Your task to perform on an android device: turn on bluetooth scan Image 0: 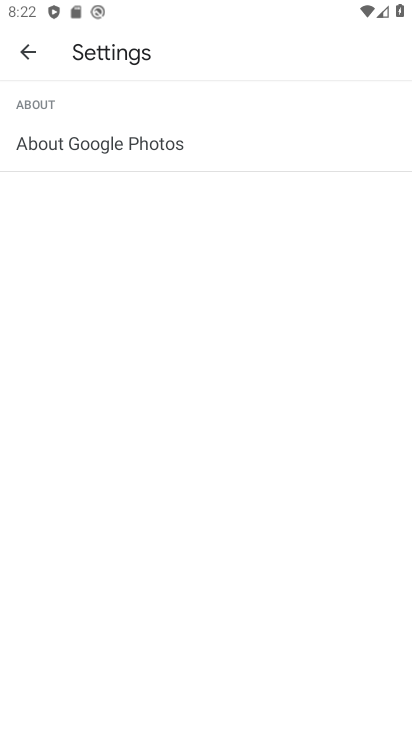
Step 0: press home button
Your task to perform on an android device: turn on bluetooth scan Image 1: 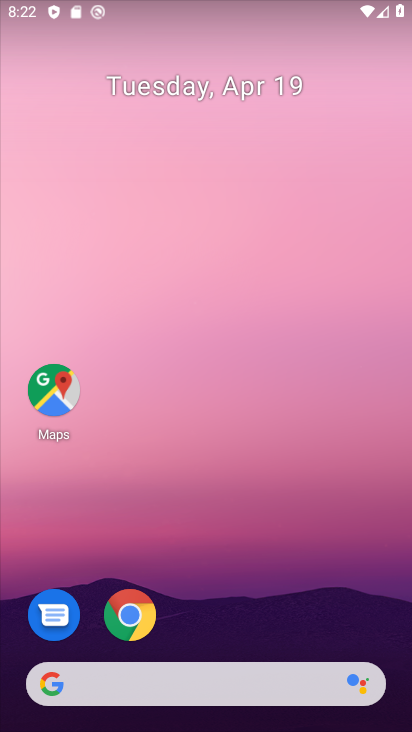
Step 1: drag from (186, 331) to (219, 7)
Your task to perform on an android device: turn on bluetooth scan Image 2: 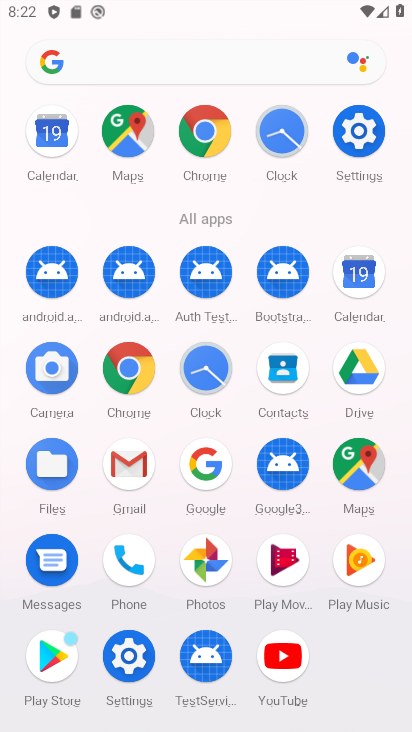
Step 2: click (361, 122)
Your task to perform on an android device: turn on bluetooth scan Image 3: 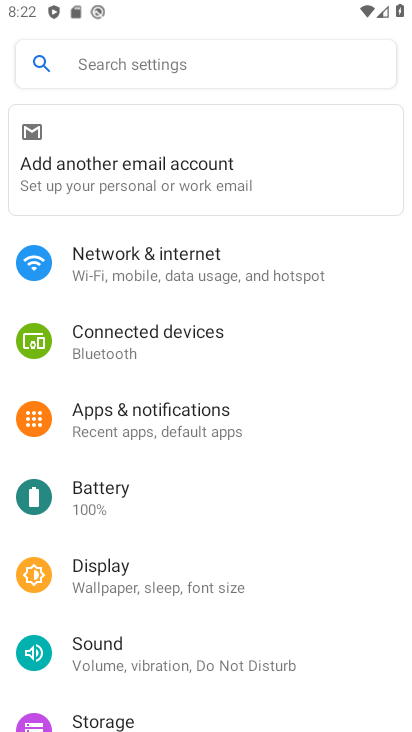
Step 3: click (170, 338)
Your task to perform on an android device: turn on bluetooth scan Image 4: 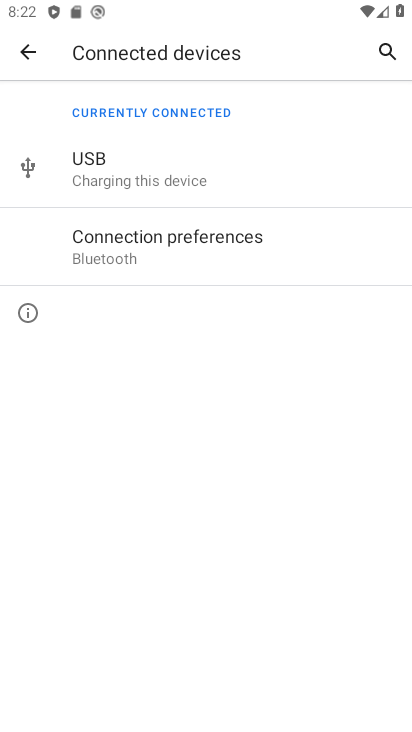
Step 4: click (166, 236)
Your task to perform on an android device: turn on bluetooth scan Image 5: 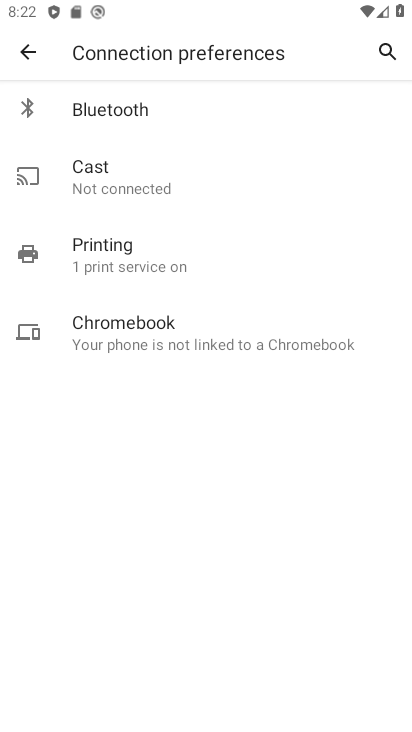
Step 5: click (106, 118)
Your task to perform on an android device: turn on bluetooth scan Image 6: 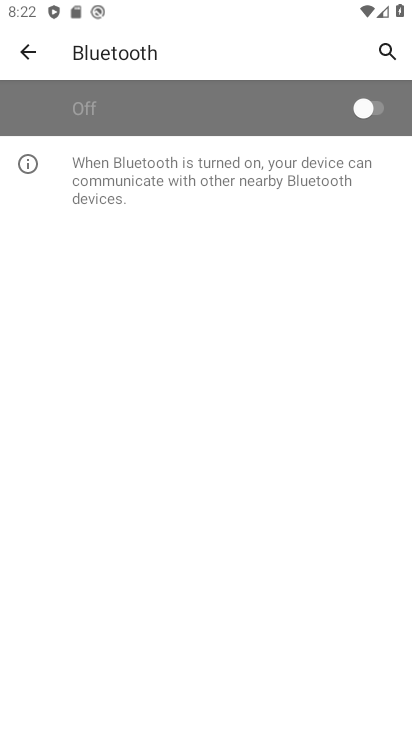
Step 6: click (370, 114)
Your task to perform on an android device: turn on bluetooth scan Image 7: 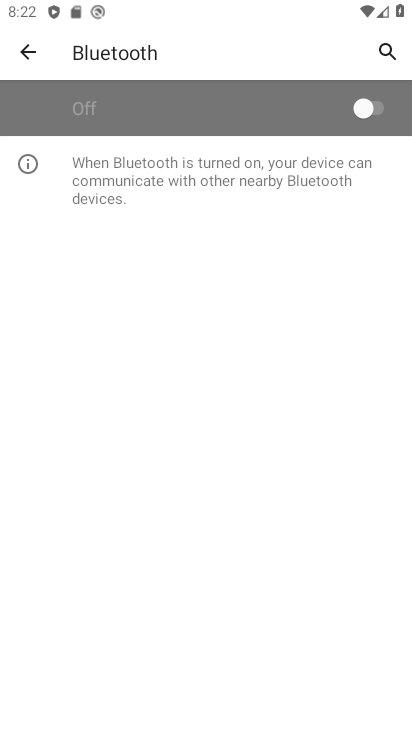
Step 7: click (366, 101)
Your task to perform on an android device: turn on bluetooth scan Image 8: 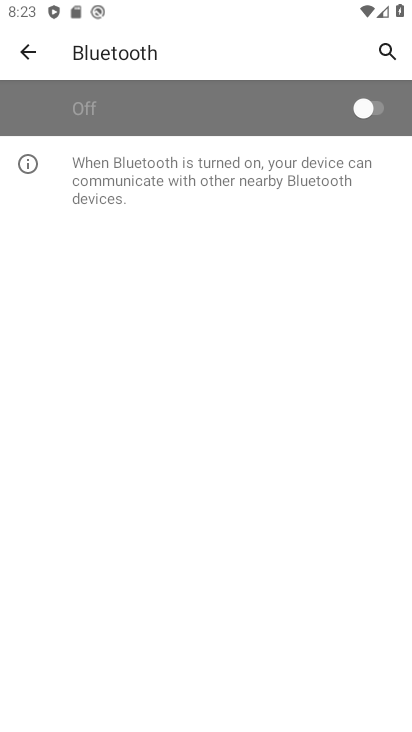
Step 8: task complete